Your task to perform on an android device: turn off priority inbox in the gmail app Image 0: 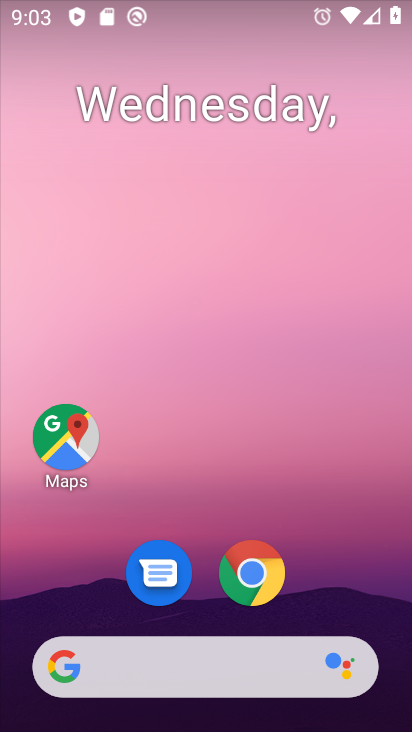
Step 0: drag from (197, 688) to (412, 517)
Your task to perform on an android device: turn off priority inbox in the gmail app Image 1: 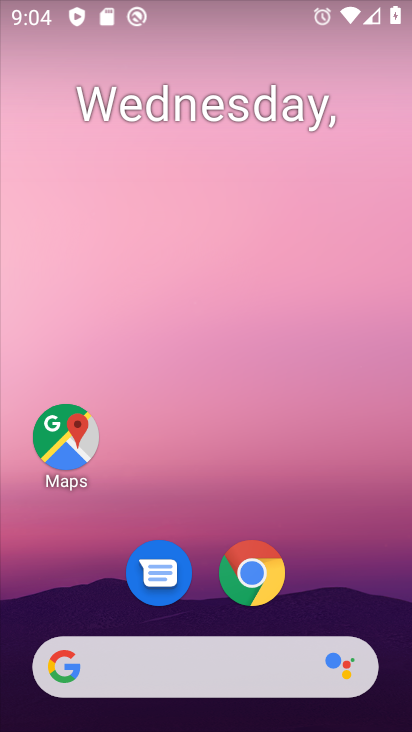
Step 1: drag from (260, 460) to (288, 16)
Your task to perform on an android device: turn off priority inbox in the gmail app Image 2: 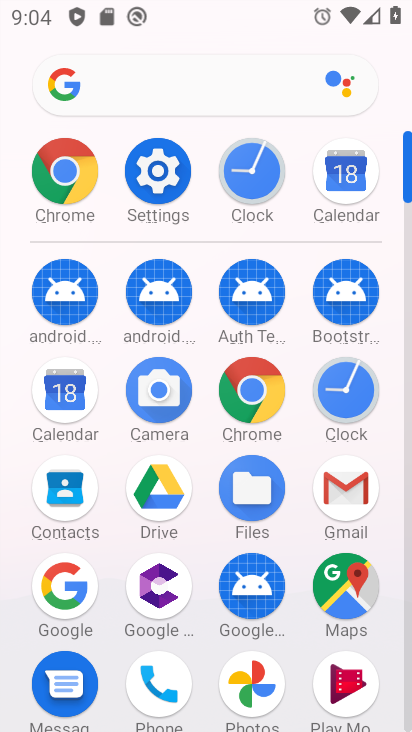
Step 2: click (340, 496)
Your task to perform on an android device: turn off priority inbox in the gmail app Image 3: 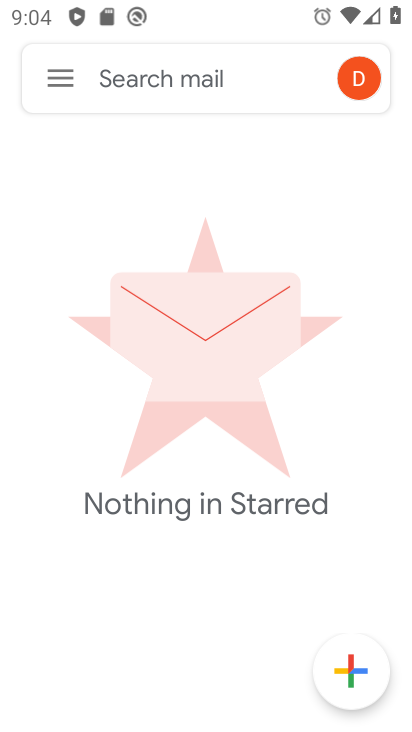
Step 3: click (66, 86)
Your task to perform on an android device: turn off priority inbox in the gmail app Image 4: 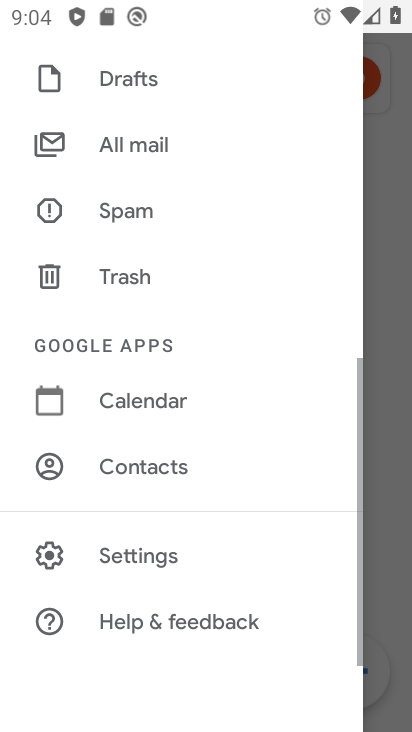
Step 4: click (102, 555)
Your task to perform on an android device: turn off priority inbox in the gmail app Image 5: 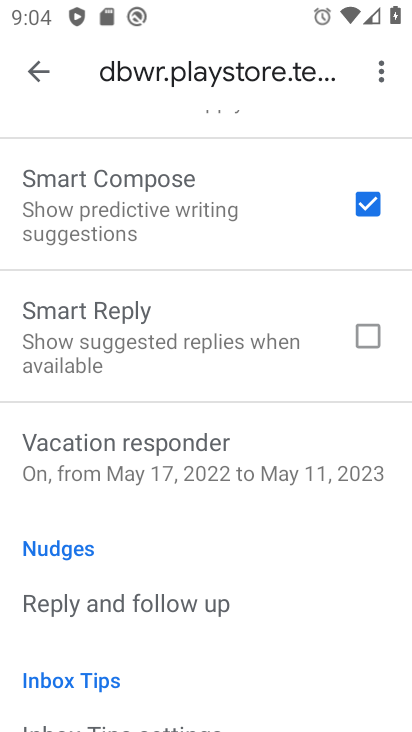
Step 5: task complete